Your task to perform on an android device: turn off sleep mode Image 0: 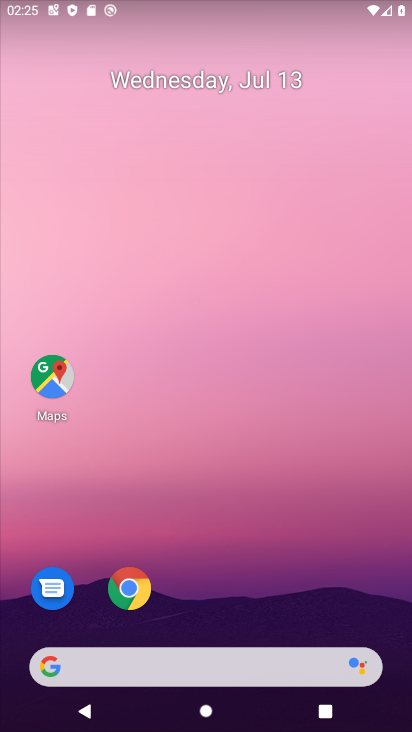
Step 0: drag from (403, 692) to (10, 241)
Your task to perform on an android device: turn off sleep mode Image 1: 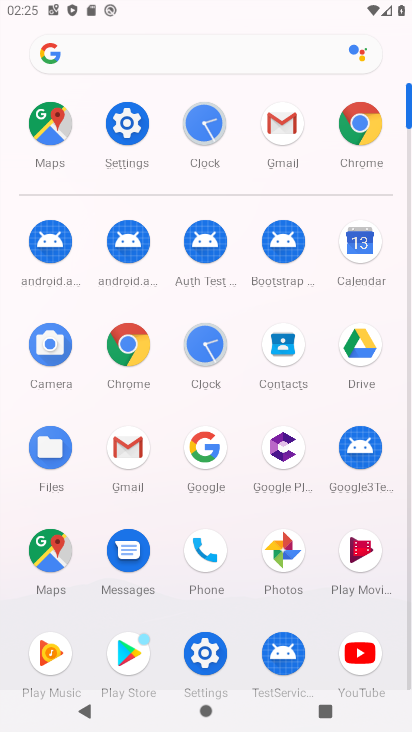
Step 1: click (133, 122)
Your task to perform on an android device: turn off sleep mode Image 2: 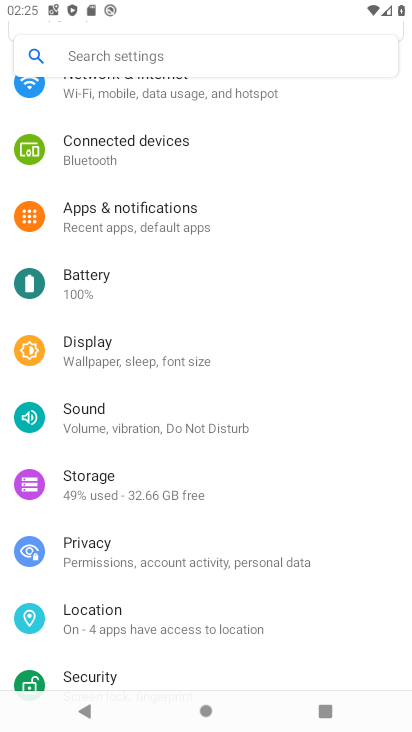
Step 2: click (98, 353)
Your task to perform on an android device: turn off sleep mode Image 3: 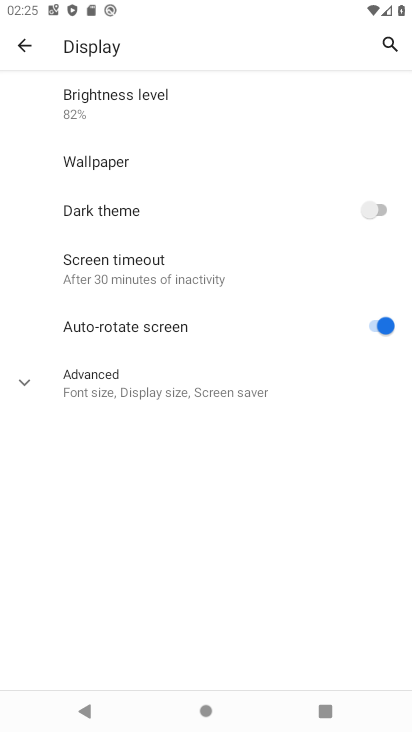
Step 3: click (72, 287)
Your task to perform on an android device: turn off sleep mode Image 4: 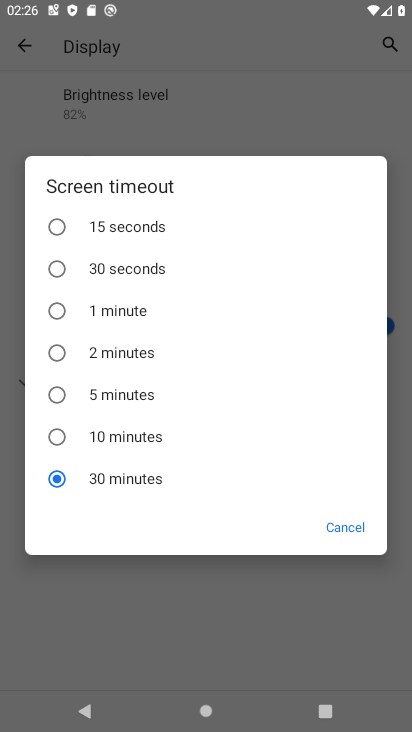
Step 4: task complete